Your task to perform on an android device: Go to Yahoo.com Image 0: 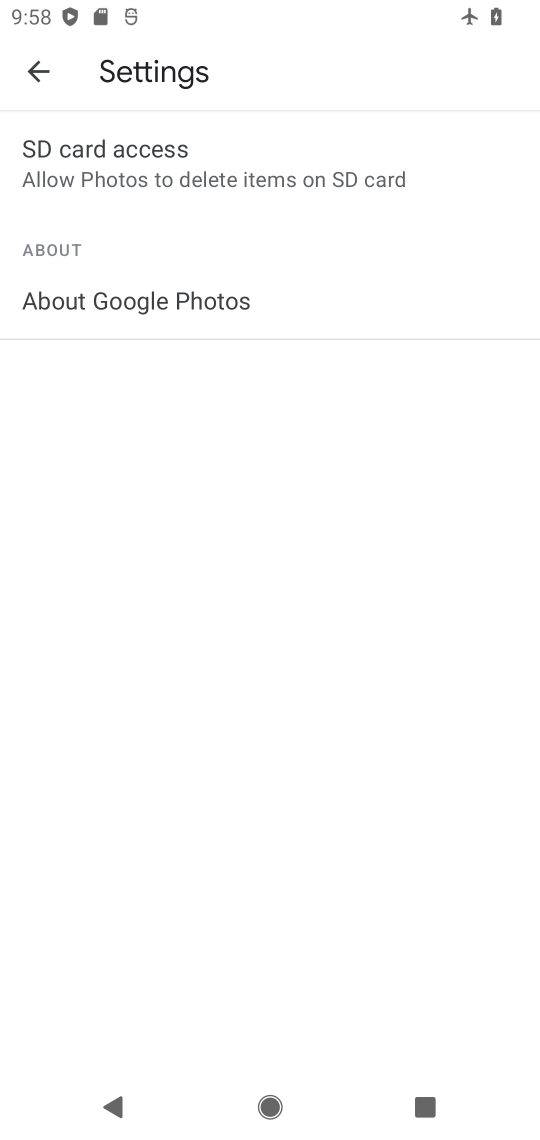
Step 0: press home button
Your task to perform on an android device: Go to Yahoo.com Image 1: 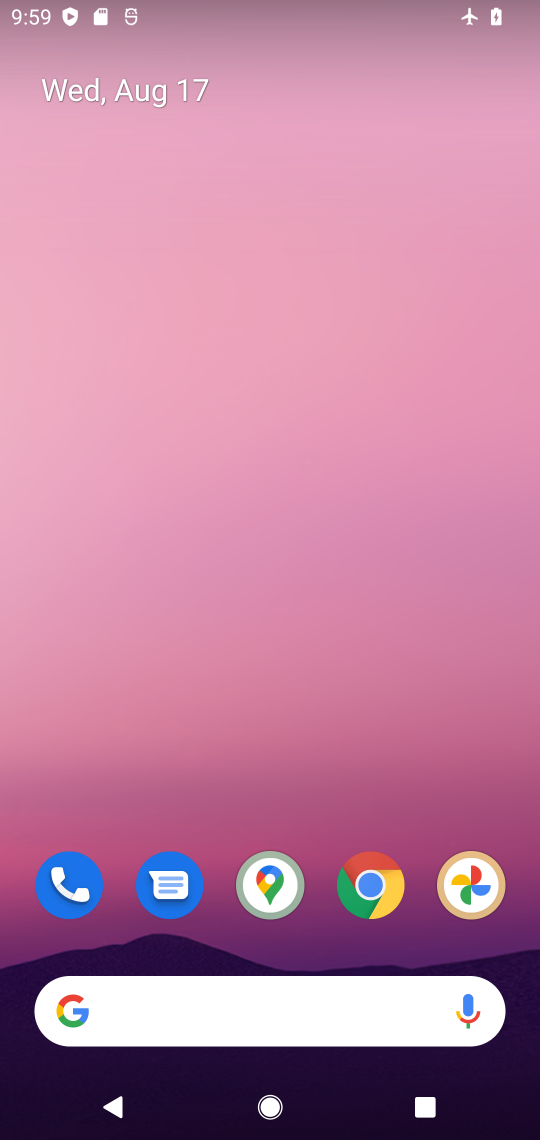
Step 1: click (368, 887)
Your task to perform on an android device: Go to Yahoo.com Image 2: 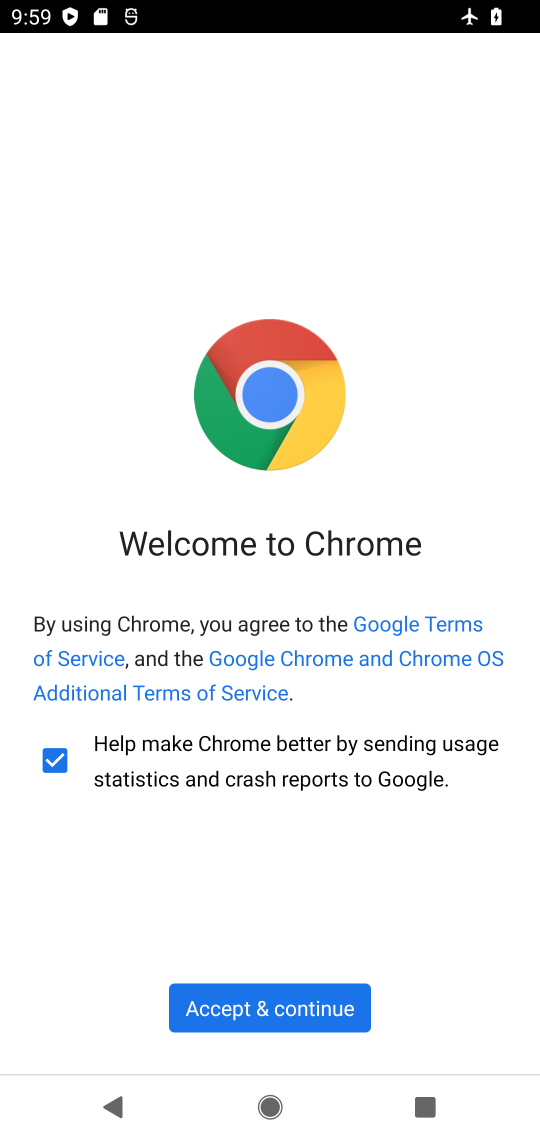
Step 2: click (264, 1011)
Your task to perform on an android device: Go to Yahoo.com Image 3: 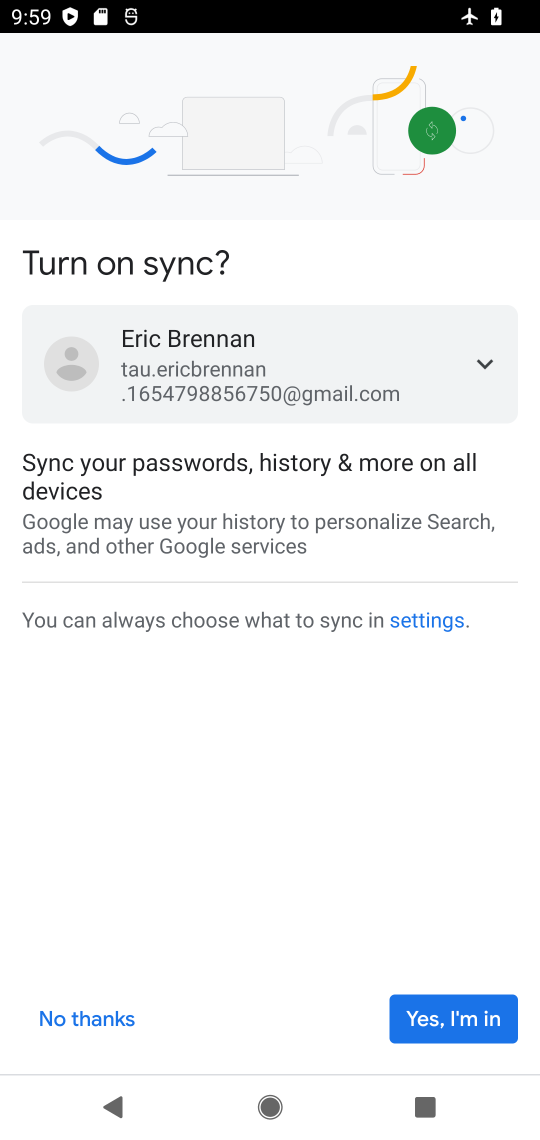
Step 3: click (460, 1016)
Your task to perform on an android device: Go to Yahoo.com Image 4: 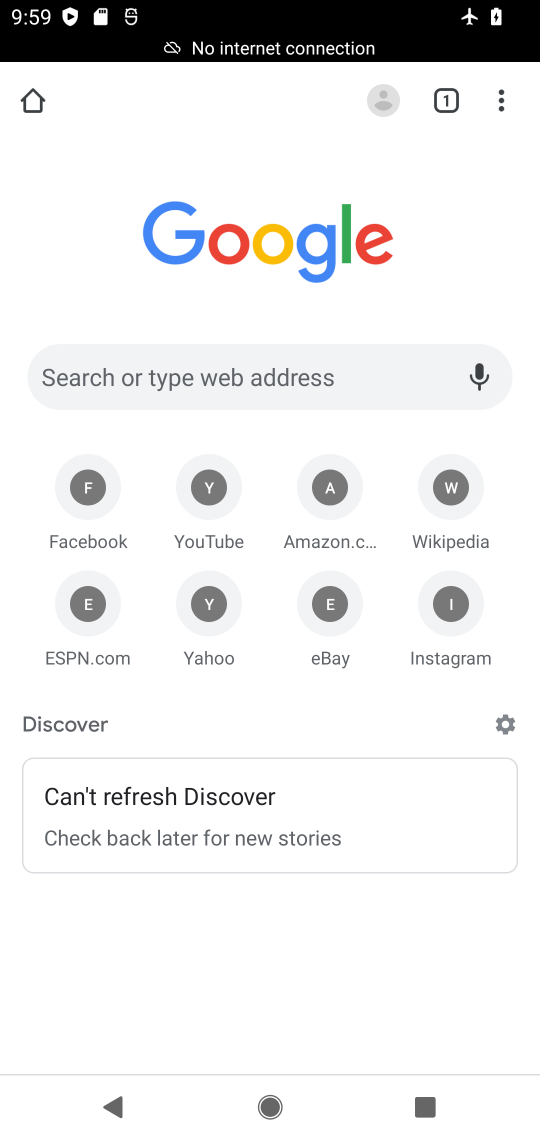
Step 4: click (171, 379)
Your task to perform on an android device: Go to Yahoo.com Image 5: 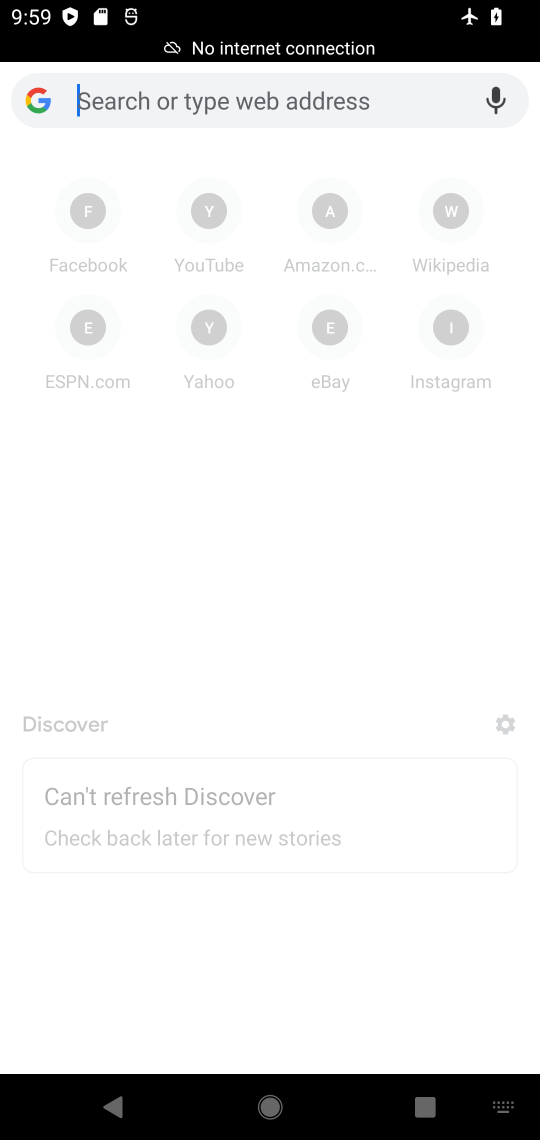
Step 5: type "yahoo.com"
Your task to perform on an android device: Go to Yahoo.com Image 6: 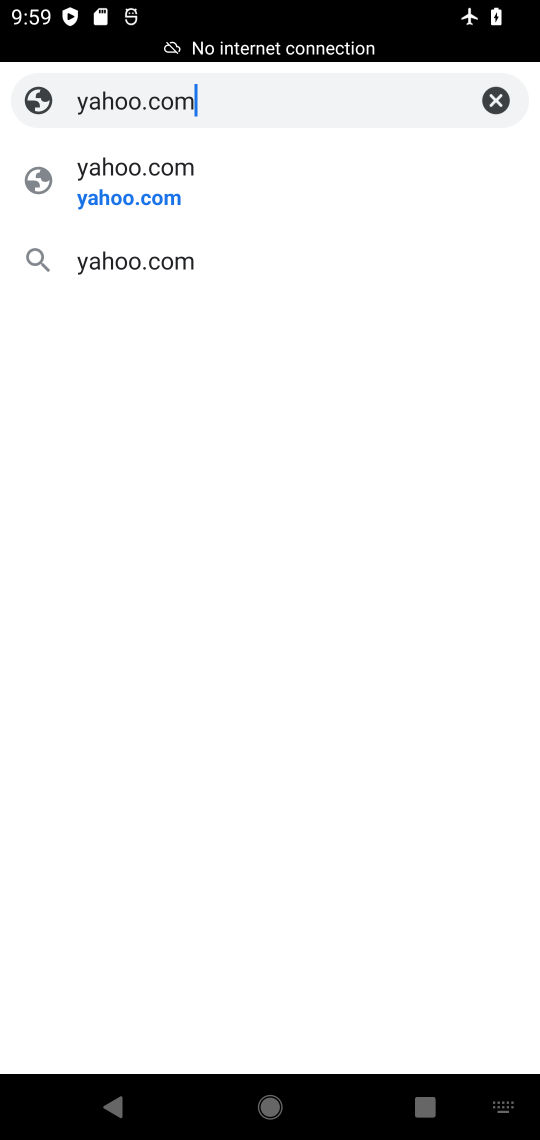
Step 6: click (179, 174)
Your task to perform on an android device: Go to Yahoo.com Image 7: 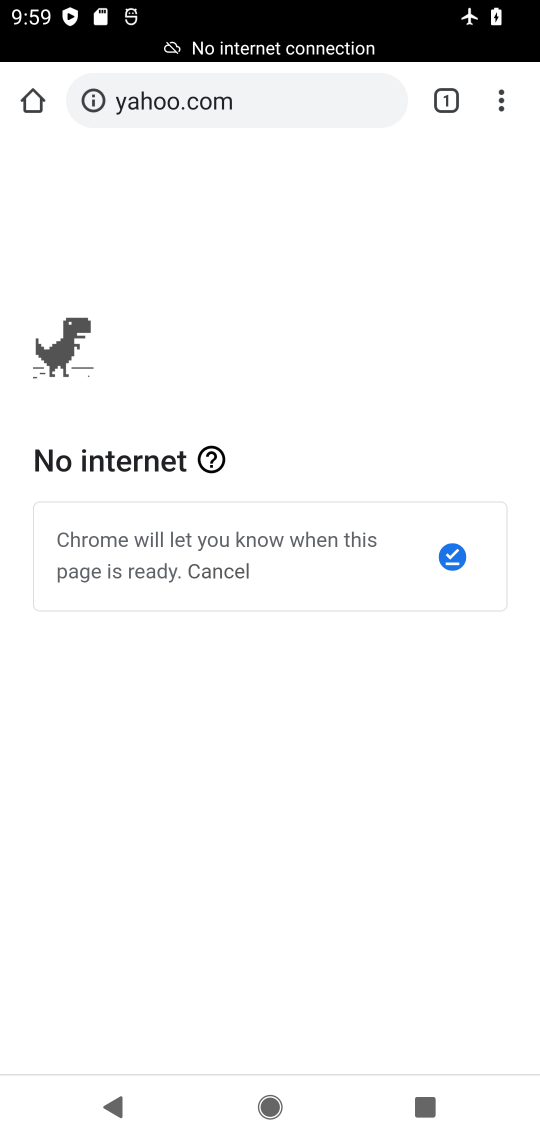
Step 7: task complete